Your task to perform on an android device: Show me recent news Image 0: 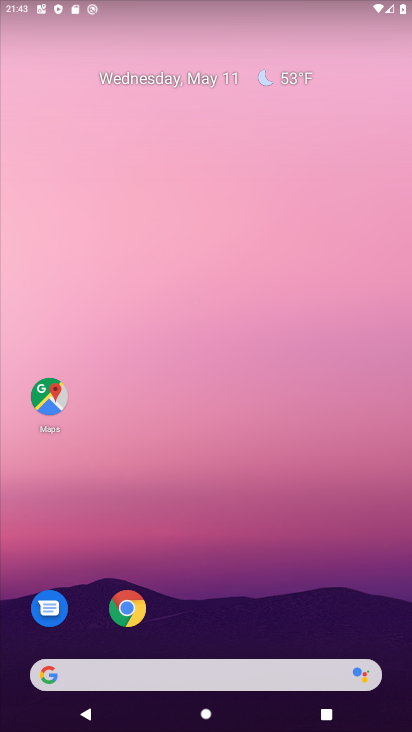
Step 0: click (140, 611)
Your task to perform on an android device: Show me recent news Image 1: 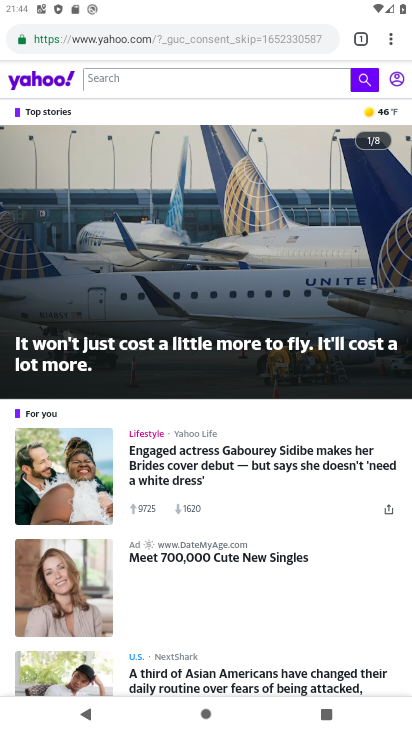
Step 1: click (174, 39)
Your task to perform on an android device: Show me recent news Image 2: 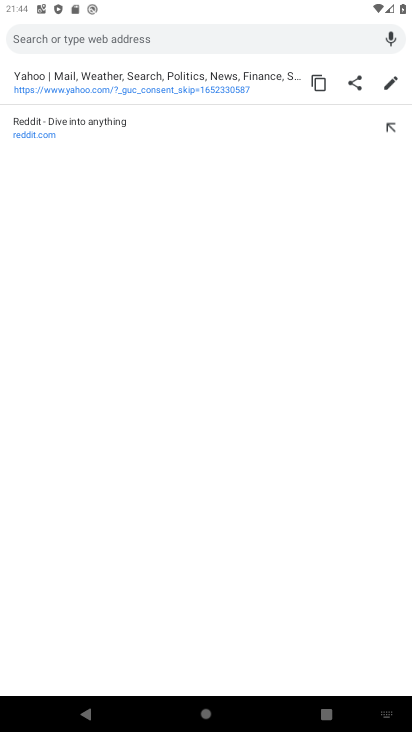
Step 2: type "recent news"
Your task to perform on an android device: Show me recent news Image 3: 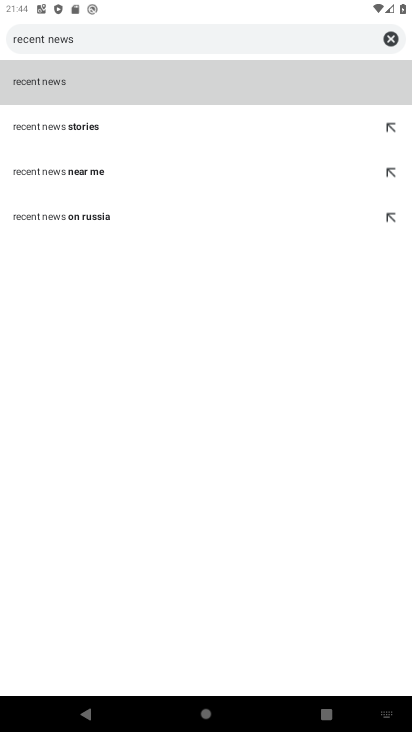
Step 3: click (72, 83)
Your task to perform on an android device: Show me recent news Image 4: 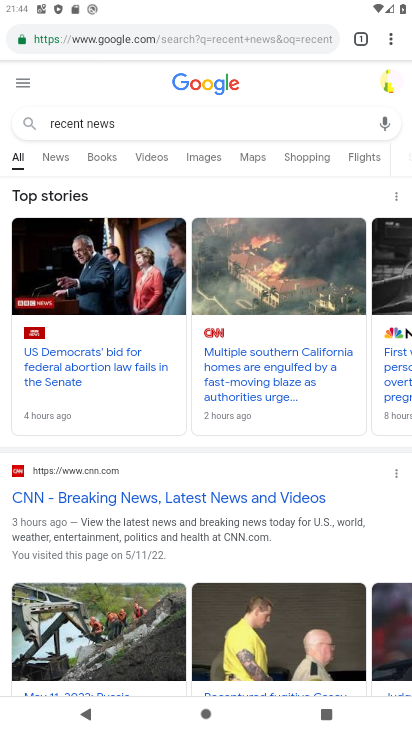
Step 4: task complete